Your task to perform on an android device: turn off notifications settings in the gmail app Image 0: 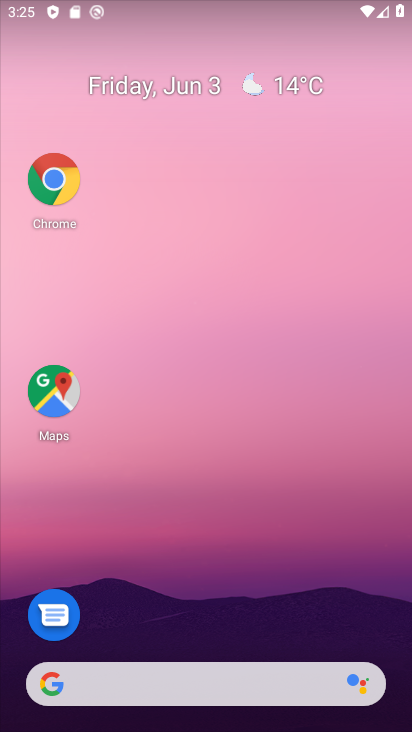
Step 0: drag from (165, 726) to (197, 152)
Your task to perform on an android device: turn off notifications settings in the gmail app Image 1: 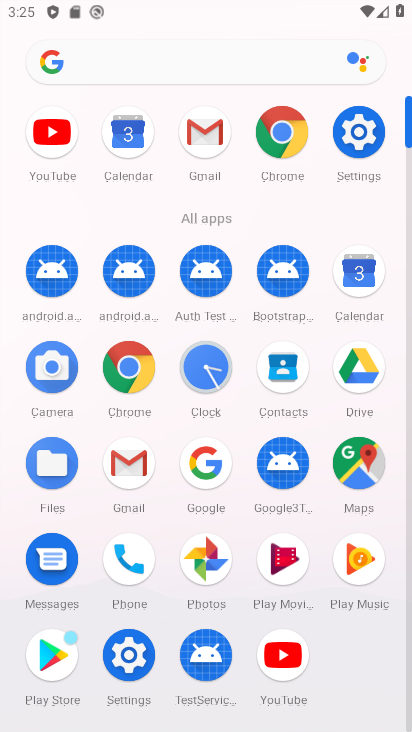
Step 1: click (130, 475)
Your task to perform on an android device: turn off notifications settings in the gmail app Image 2: 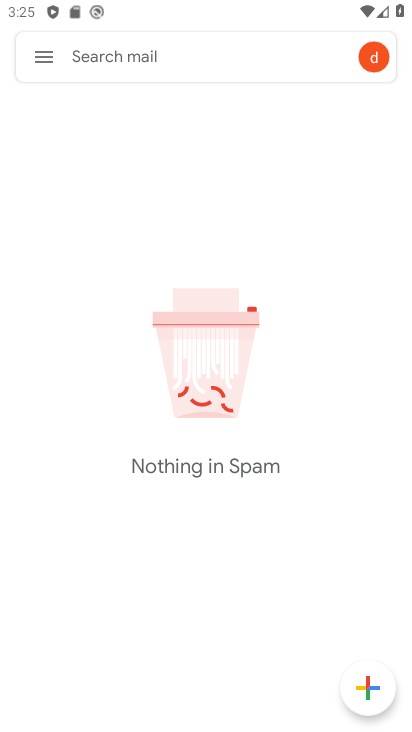
Step 2: click (44, 55)
Your task to perform on an android device: turn off notifications settings in the gmail app Image 3: 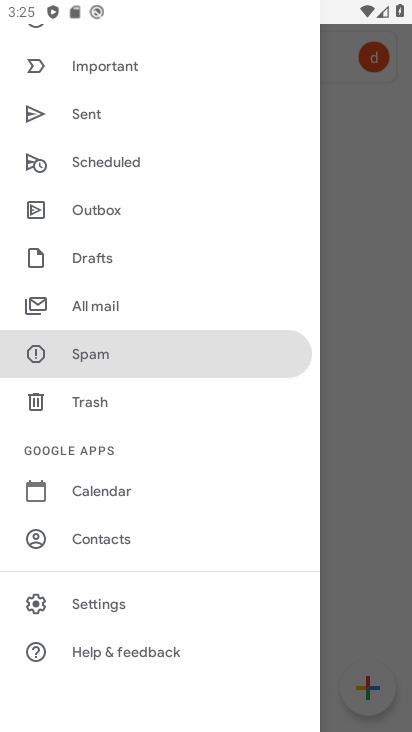
Step 3: click (111, 600)
Your task to perform on an android device: turn off notifications settings in the gmail app Image 4: 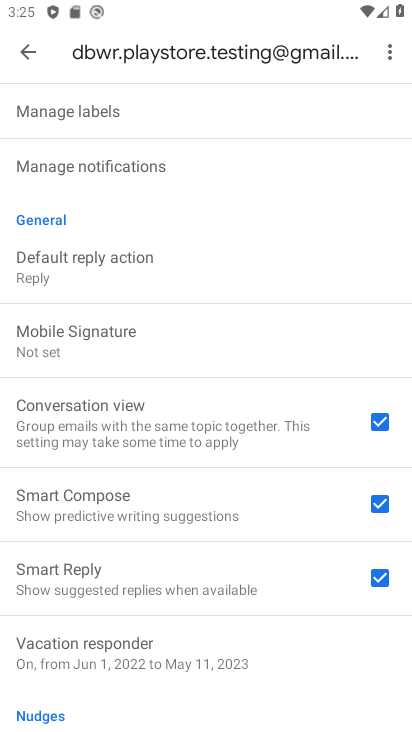
Step 4: drag from (251, 167) to (283, 700)
Your task to perform on an android device: turn off notifications settings in the gmail app Image 5: 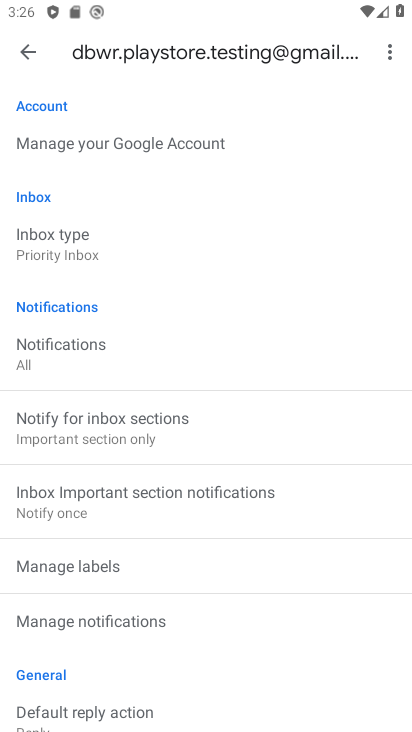
Step 5: click (69, 352)
Your task to perform on an android device: turn off notifications settings in the gmail app Image 6: 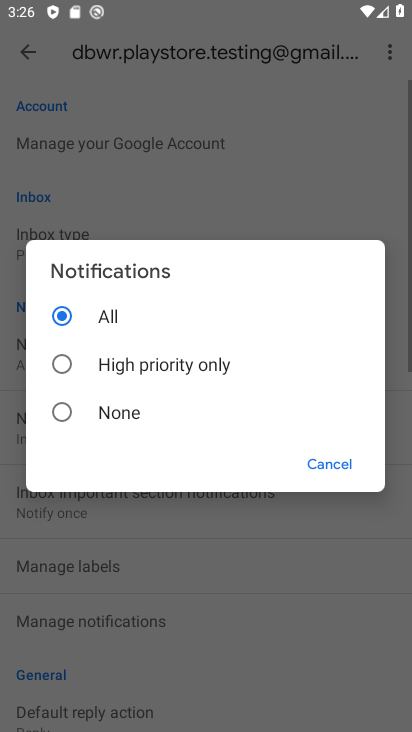
Step 6: click (90, 410)
Your task to perform on an android device: turn off notifications settings in the gmail app Image 7: 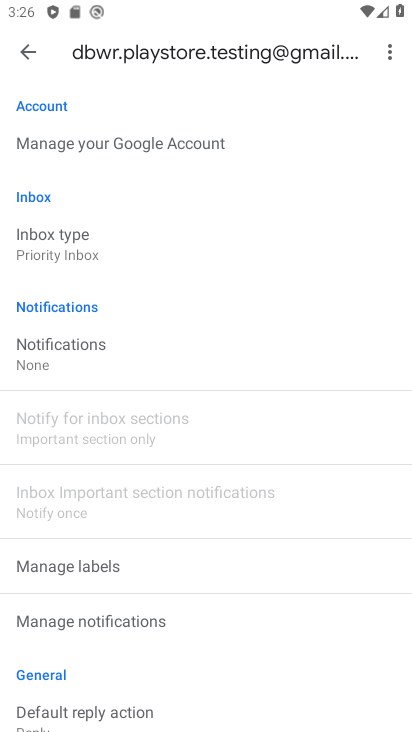
Step 7: click (191, 261)
Your task to perform on an android device: turn off notifications settings in the gmail app Image 8: 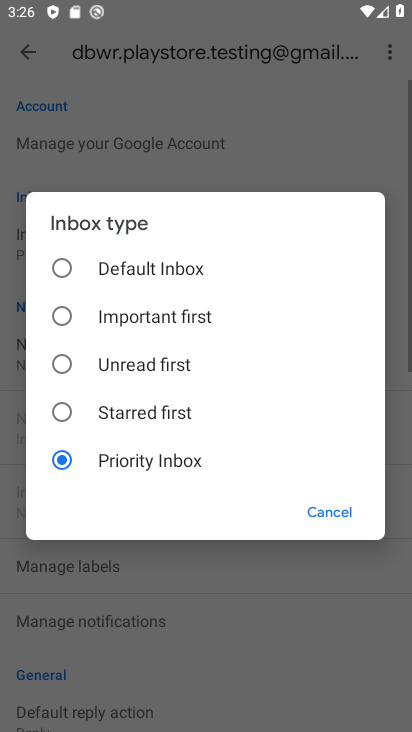
Step 8: click (191, 261)
Your task to perform on an android device: turn off notifications settings in the gmail app Image 9: 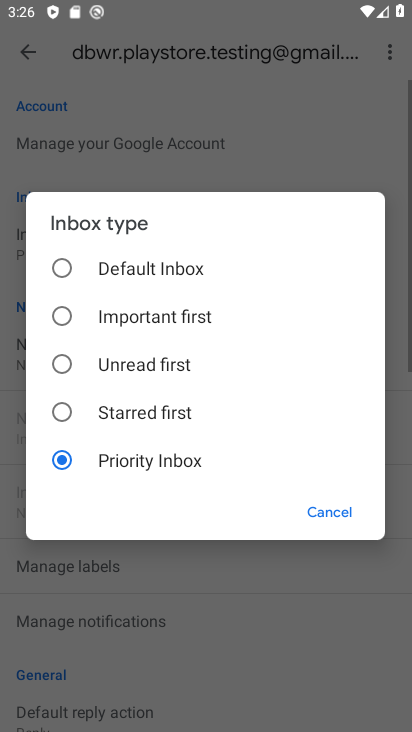
Step 9: click (191, 261)
Your task to perform on an android device: turn off notifications settings in the gmail app Image 10: 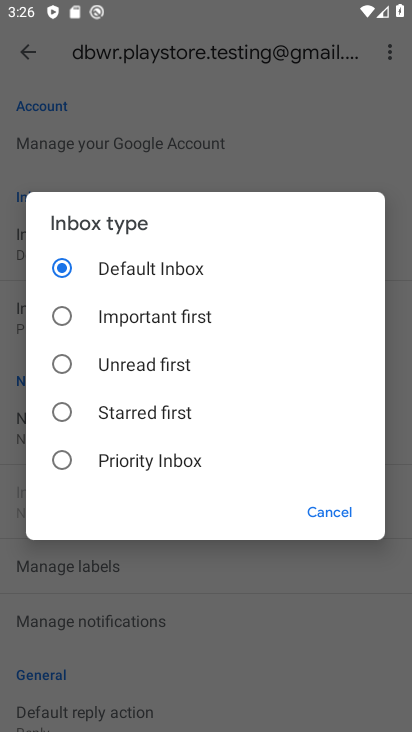
Step 10: click (321, 145)
Your task to perform on an android device: turn off notifications settings in the gmail app Image 11: 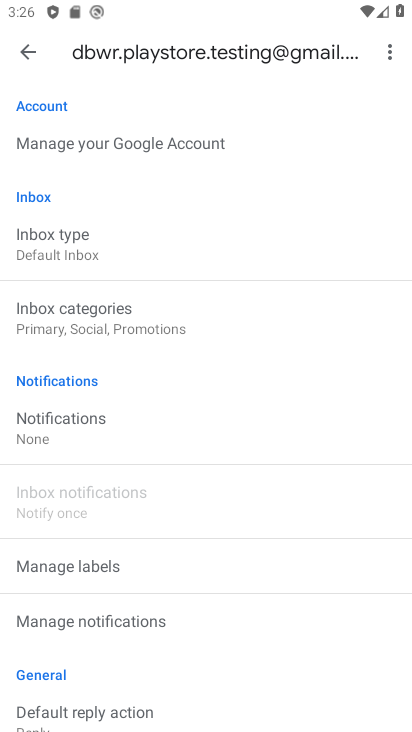
Step 11: task complete